Your task to perform on an android device: open app "File Manager" Image 0: 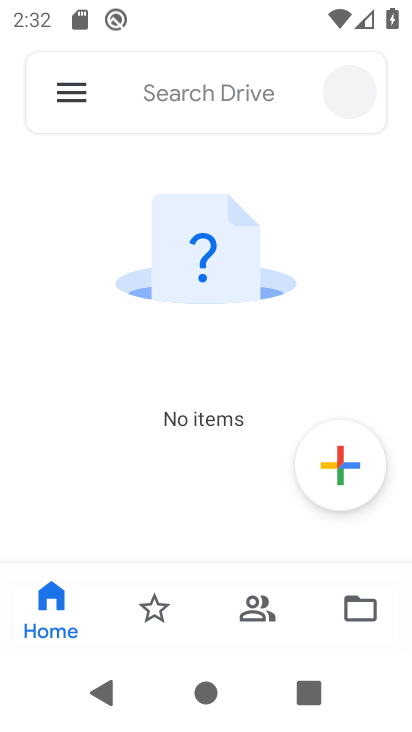
Step 0: press back button
Your task to perform on an android device: open app "File Manager" Image 1: 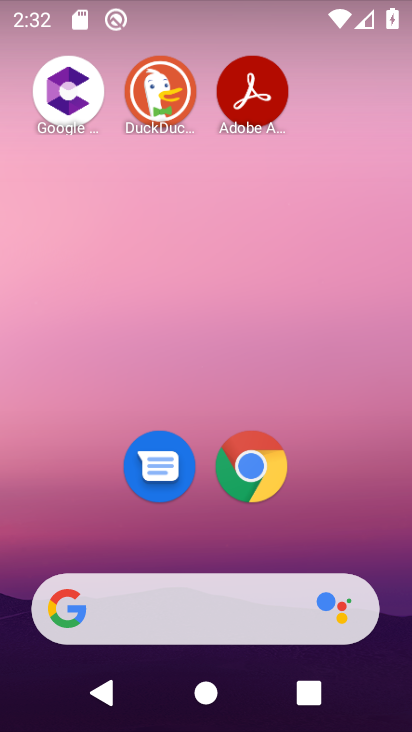
Step 1: drag from (205, 596) to (194, 11)
Your task to perform on an android device: open app "File Manager" Image 2: 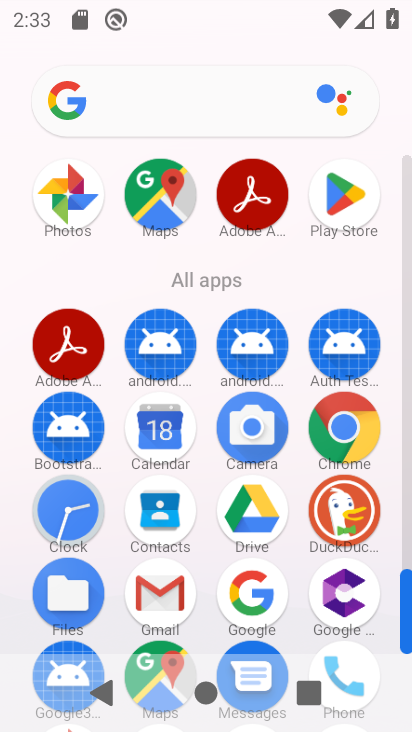
Step 2: click (333, 186)
Your task to perform on an android device: open app "File Manager" Image 3: 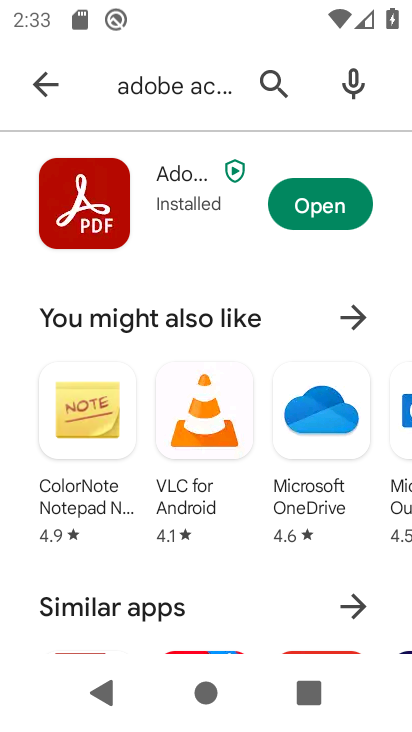
Step 3: click (276, 92)
Your task to perform on an android device: open app "File Manager" Image 4: 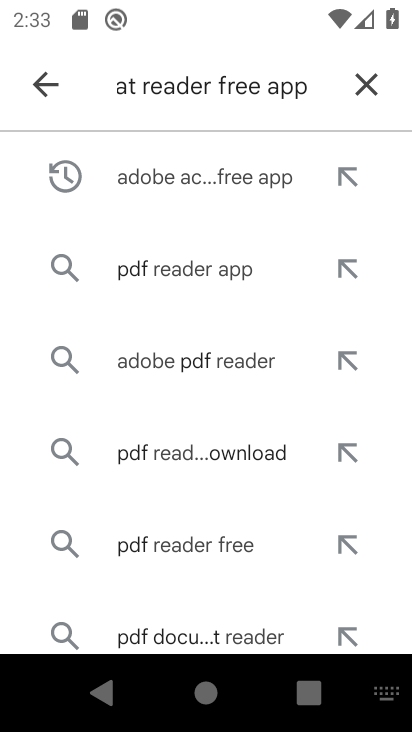
Step 4: click (364, 82)
Your task to perform on an android device: open app "File Manager" Image 5: 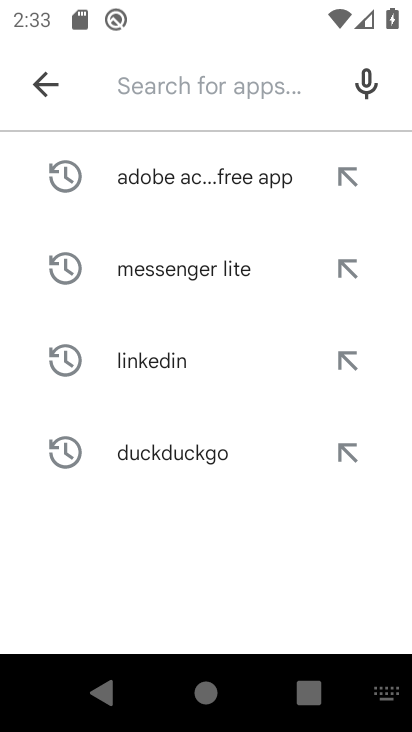
Step 5: type "file manager"
Your task to perform on an android device: open app "File Manager" Image 6: 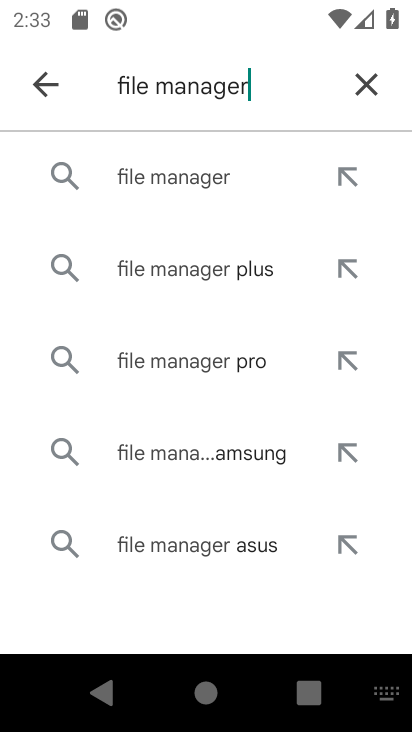
Step 6: click (161, 198)
Your task to perform on an android device: open app "File Manager" Image 7: 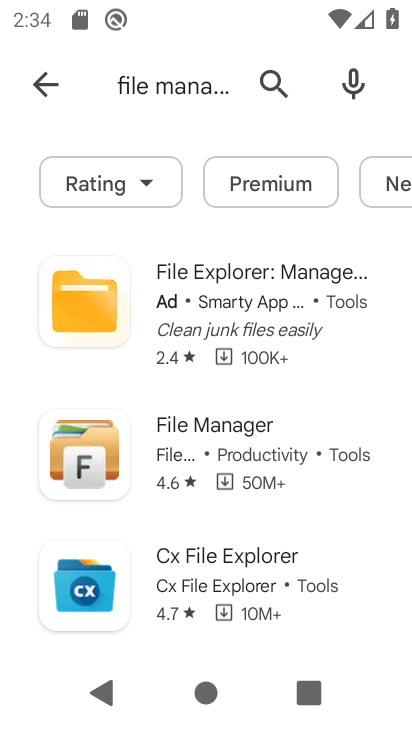
Step 7: task complete